Your task to perform on an android device: Show me the alarms in the clock app Image 0: 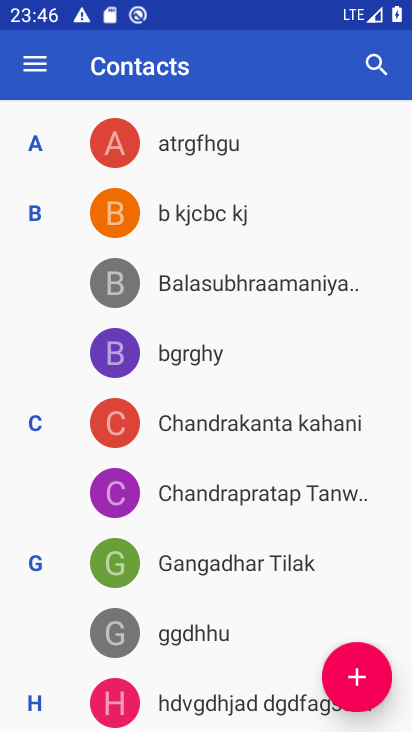
Step 0: press home button
Your task to perform on an android device: Show me the alarms in the clock app Image 1: 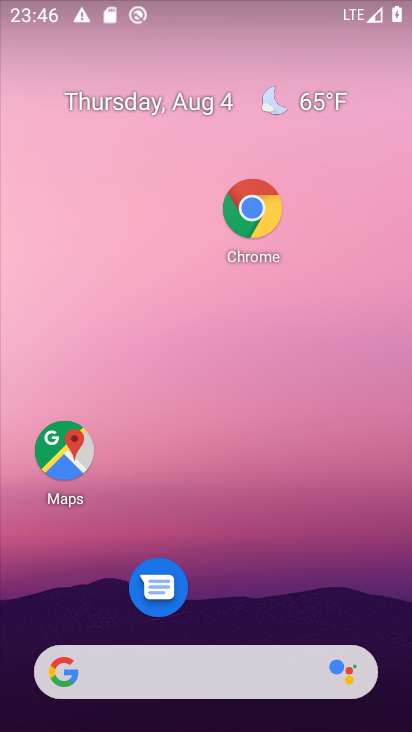
Step 1: drag from (201, 630) to (205, 30)
Your task to perform on an android device: Show me the alarms in the clock app Image 2: 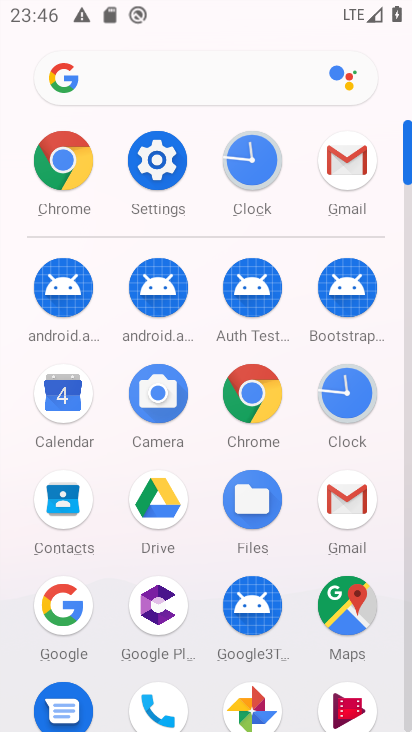
Step 2: click (352, 402)
Your task to perform on an android device: Show me the alarms in the clock app Image 3: 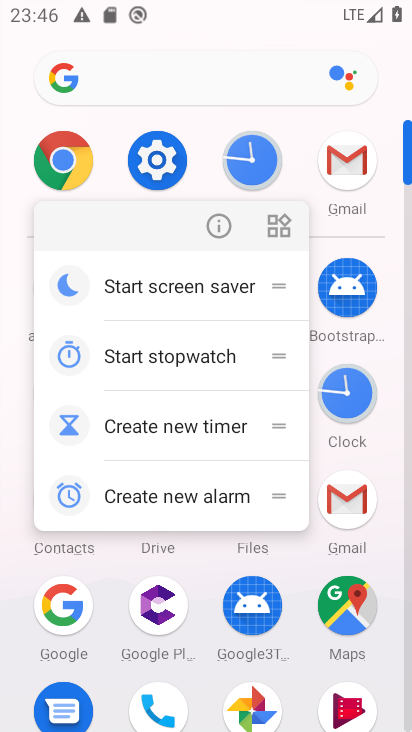
Step 3: click (368, 392)
Your task to perform on an android device: Show me the alarms in the clock app Image 4: 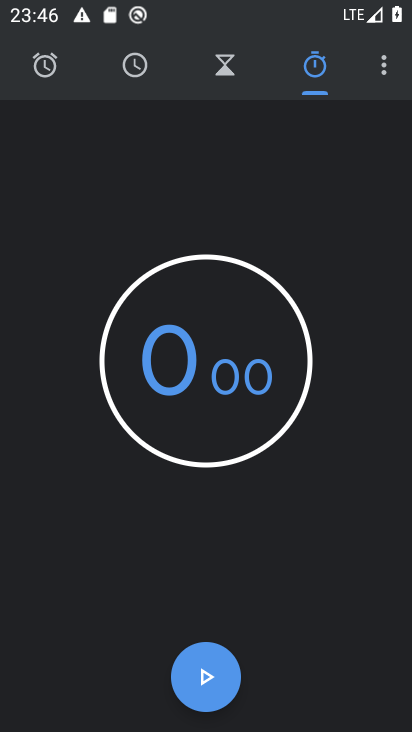
Step 4: click (32, 58)
Your task to perform on an android device: Show me the alarms in the clock app Image 5: 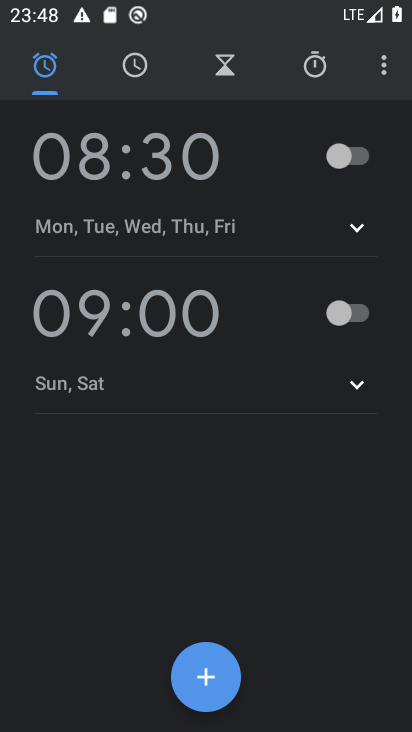
Step 5: task complete